Your task to perform on an android device: Search for Mexican restaurants on Maps Image 0: 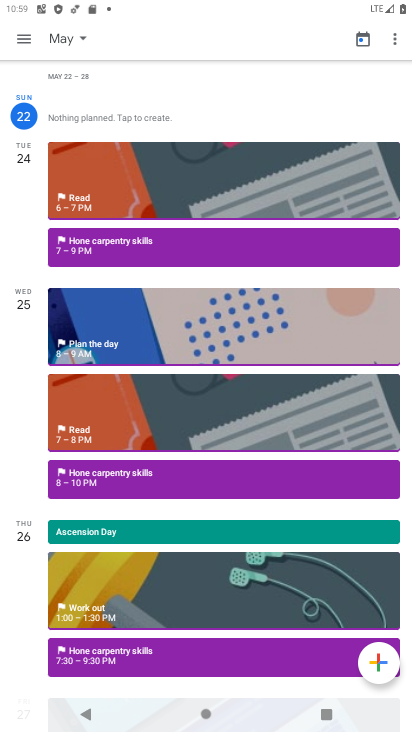
Step 0: press home button
Your task to perform on an android device: Search for Mexican restaurants on Maps Image 1: 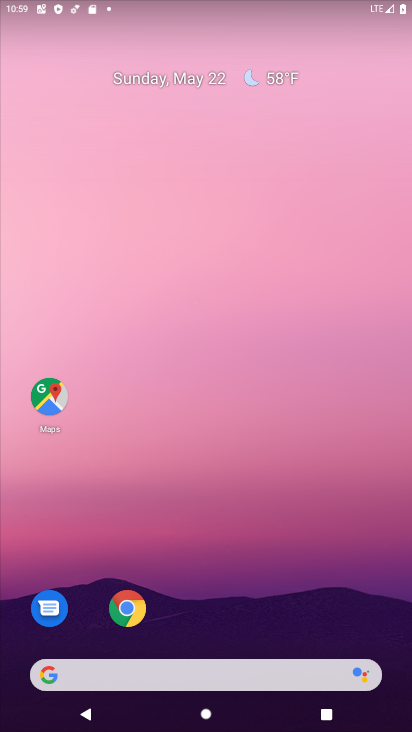
Step 1: drag from (223, 726) to (224, 150)
Your task to perform on an android device: Search for Mexican restaurants on Maps Image 2: 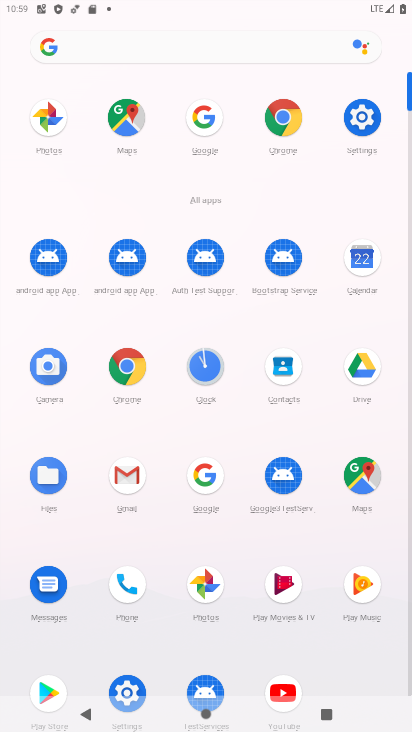
Step 2: click (358, 480)
Your task to perform on an android device: Search for Mexican restaurants on Maps Image 3: 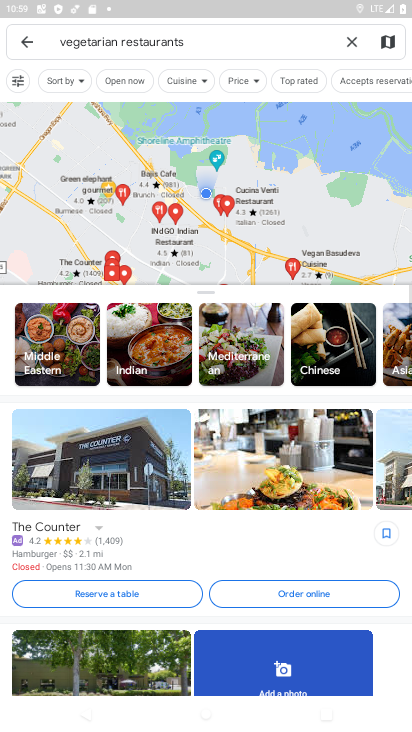
Step 3: click (353, 35)
Your task to perform on an android device: Search for Mexican restaurants on Maps Image 4: 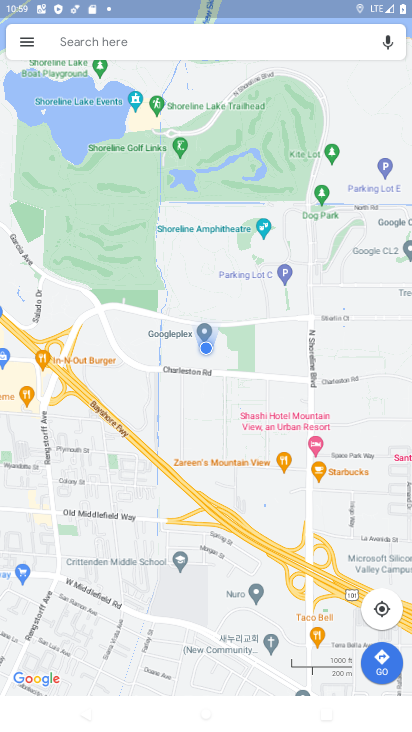
Step 4: click (173, 47)
Your task to perform on an android device: Search for Mexican restaurants on Maps Image 5: 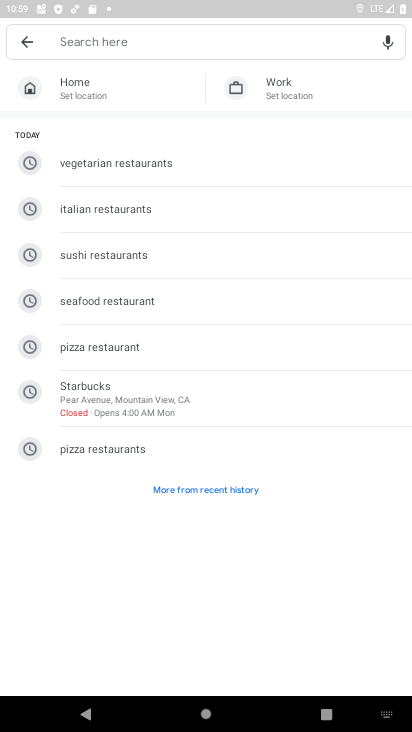
Step 5: type "Mexican restaurants"
Your task to perform on an android device: Search for Mexican restaurants on Maps Image 6: 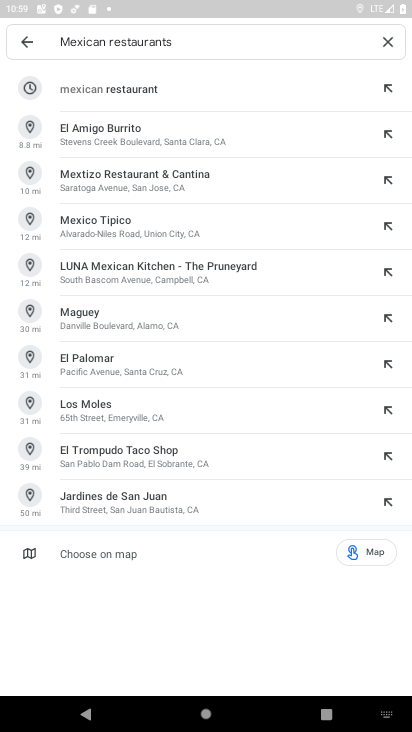
Step 6: click (126, 84)
Your task to perform on an android device: Search for Mexican restaurants on Maps Image 7: 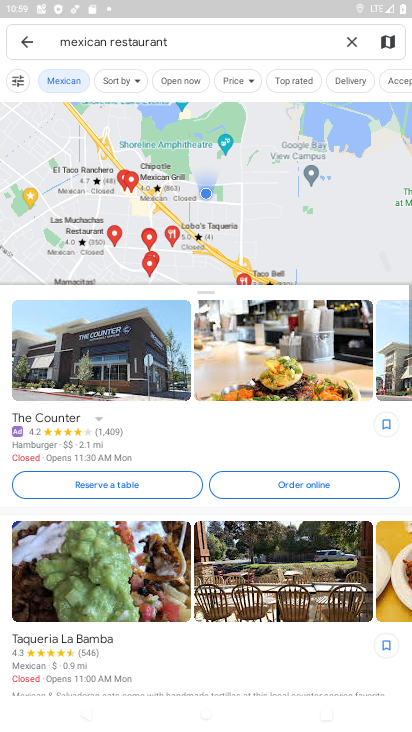
Step 7: task complete